Your task to perform on an android device: Open network settings Image 0: 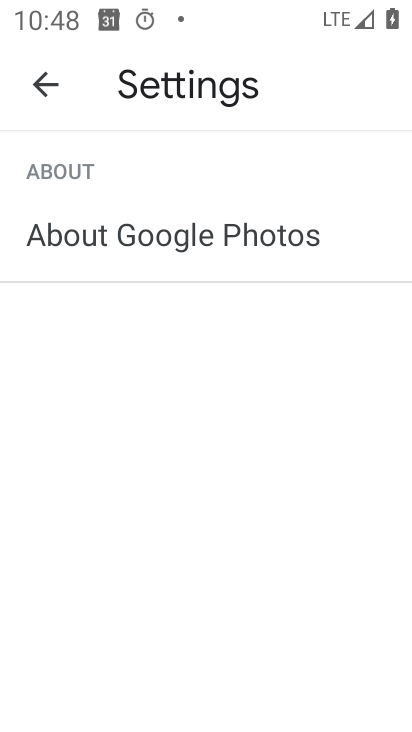
Step 0: press home button
Your task to perform on an android device: Open network settings Image 1: 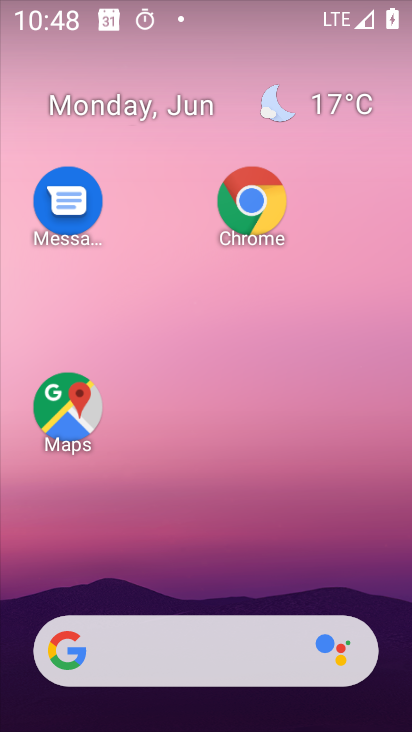
Step 1: drag from (237, 616) to (200, 55)
Your task to perform on an android device: Open network settings Image 2: 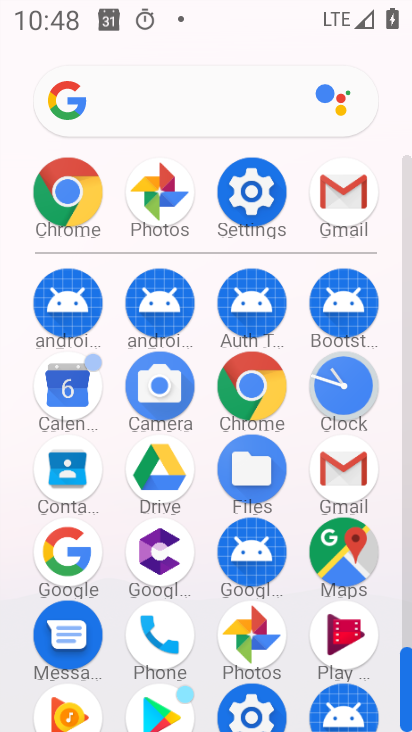
Step 2: click (232, 167)
Your task to perform on an android device: Open network settings Image 3: 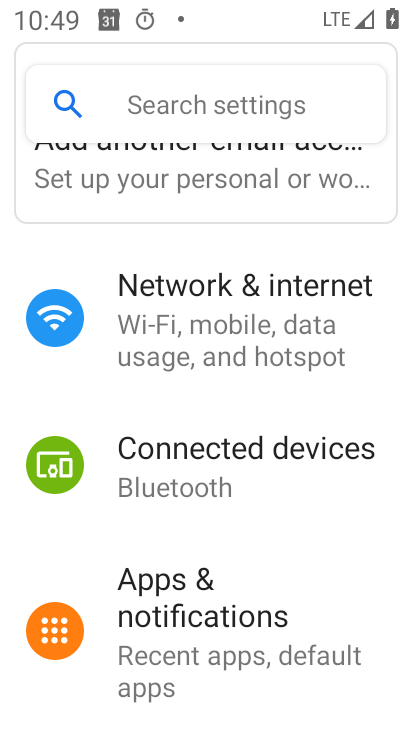
Step 3: click (254, 331)
Your task to perform on an android device: Open network settings Image 4: 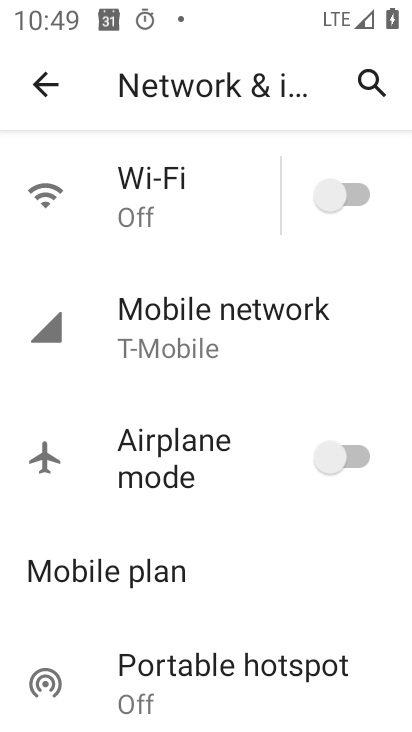
Step 4: click (254, 331)
Your task to perform on an android device: Open network settings Image 5: 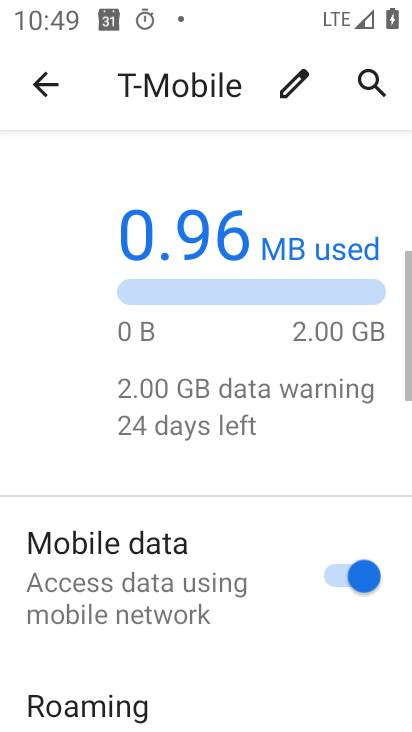
Step 5: task complete